Your task to perform on an android device: Show me productivity apps on the Play Store Image 0: 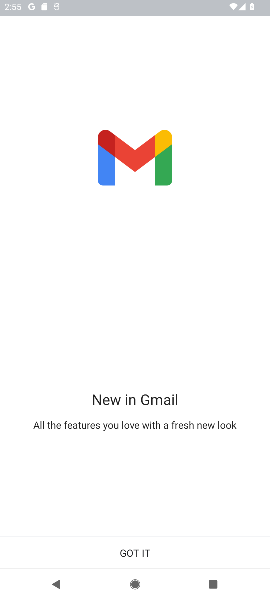
Step 0: drag from (110, 253) to (93, 94)
Your task to perform on an android device: Show me productivity apps on the Play Store Image 1: 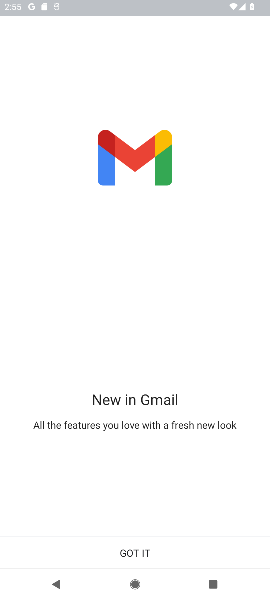
Step 1: click (119, 116)
Your task to perform on an android device: Show me productivity apps on the Play Store Image 2: 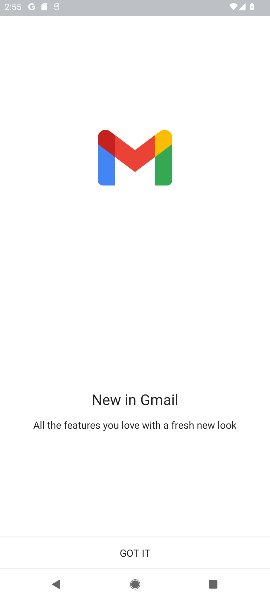
Step 2: click (133, 552)
Your task to perform on an android device: Show me productivity apps on the Play Store Image 3: 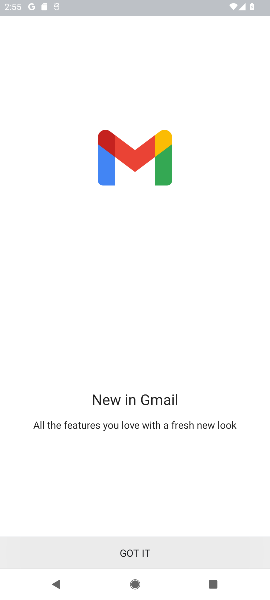
Step 3: press back button
Your task to perform on an android device: Show me productivity apps on the Play Store Image 4: 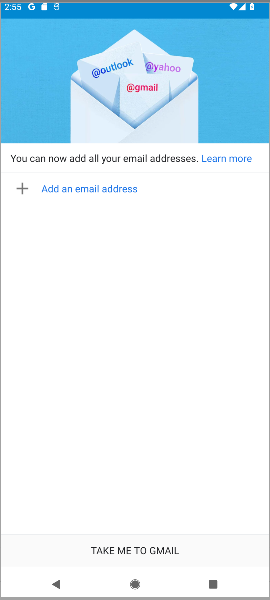
Step 4: press back button
Your task to perform on an android device: Show me productivity apps on the Play Store Image 5: 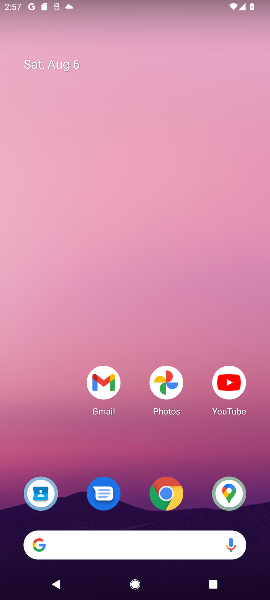
Step 5: drag from (204, 492) to (125, 14)
Your task to perform on an android device: Show me productivity apps on the Play Store Image 6: 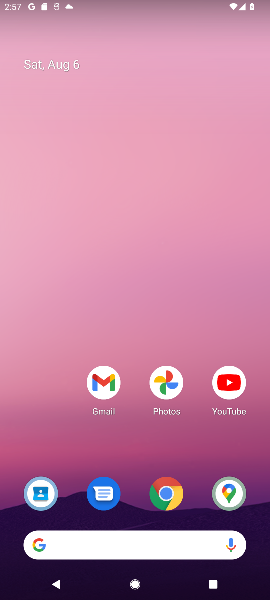
Step 6: drag from (177, 417) to (116, 35)
Your task to perform on an android device: Show me productivity apps on the Play Store Image 7: 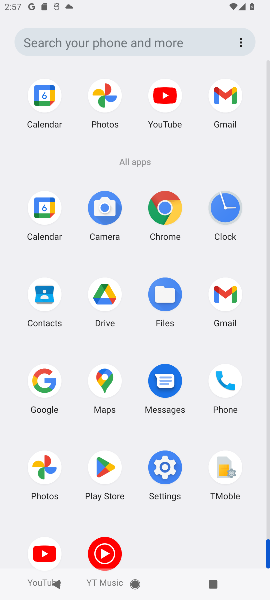
Step 7: drag from (187, 499) to (140, 131)
Your task to perform on an android device: Show me productivity apps on the Play Store Image 8: 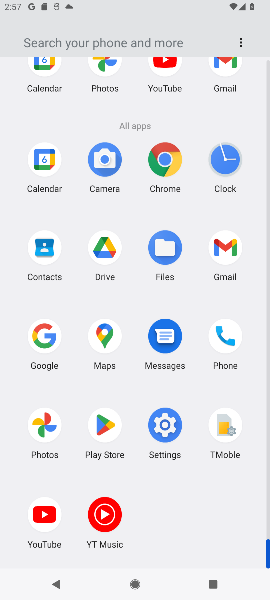
Step 8: drag from (170, 429) to (90, 152)
Your task to perform on an android device: Show me productivity apps on the Play Store Image 9: 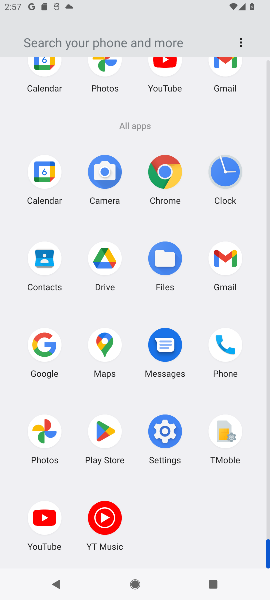
Step 9: click (98, 434)
Your task to perform on an android device: Show me productivity apps on the Play Store Image 10: 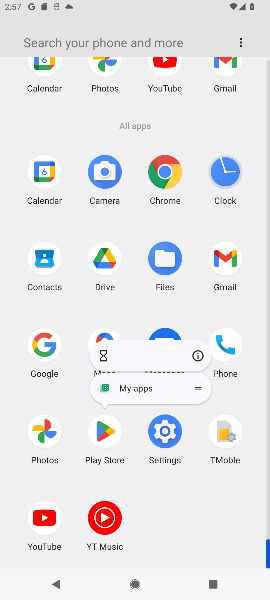
Step 10: click (98, 434)
Your task to perform on an android device: Show me productivity apps on the Play Store Image 11: 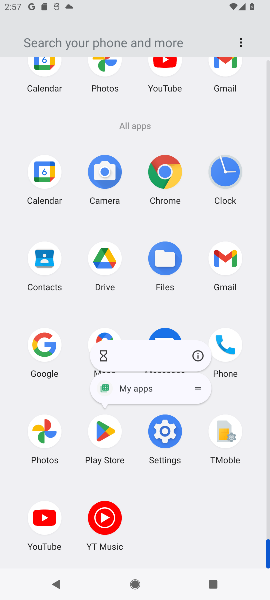
Step 11: click (98, 434)
Your task to perform on an android device: Show me productivity apps on the Play Store Image 12: 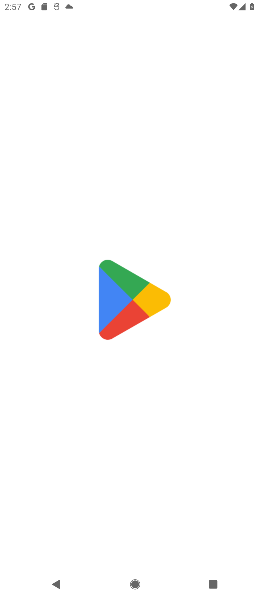
Step 12: click (108, 426)
Your task to perform on an android device: Show me productivity apps on the Play Store Image 13: 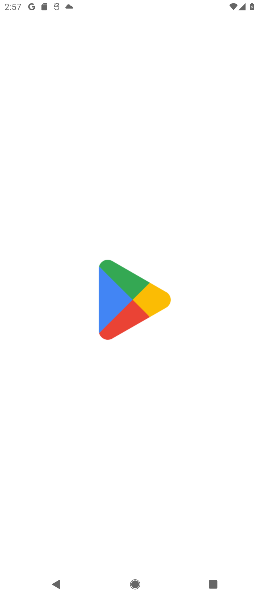
Step 13: click (108, 426)
Your task to perform on an android device: Show me productivity apps on the Play Store Image 14: 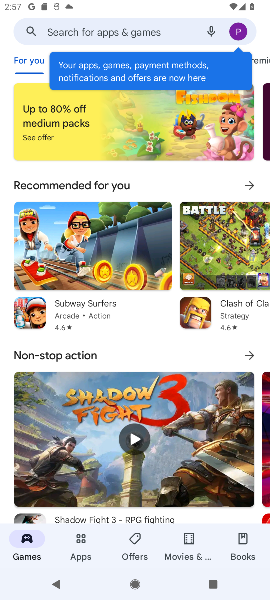
Step 14: click (79, 31)
Your task to perform on an android device: Show me productivity apps on the Play Store Image 15: 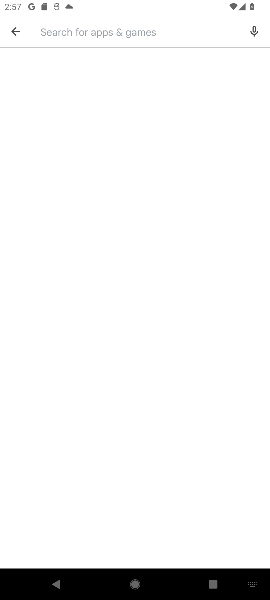
Step 15: click (84, 37)
Your task to perform on an android device: Show me productivity apps on the Play Store Image 16: 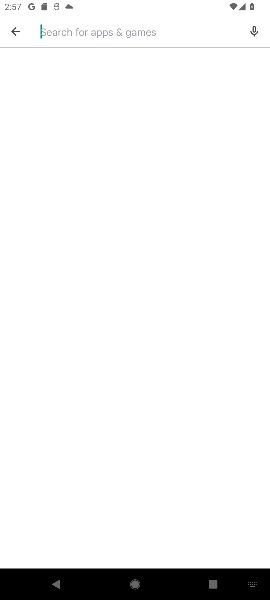
Step 16: type "play store"
Your task to perform on an android device: Show me productivity apps on the Play Store Image 17: 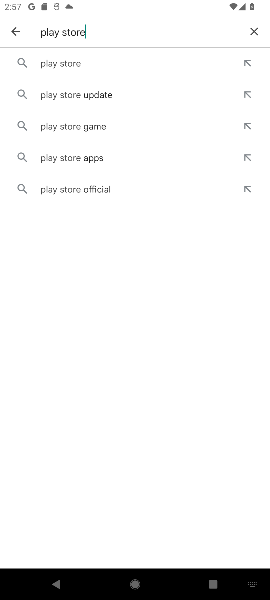
Step 17: click (64, 61)
Your task to perform on an android device: Show me productivity apps on the Play Store Image 18: 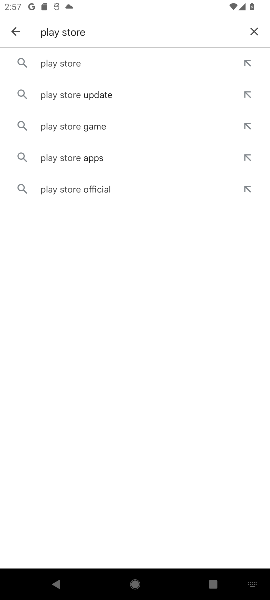
Step 18: click (64, 61)
Your task to perform on an android device: Show me productivity apps on the Play Store Image 19: 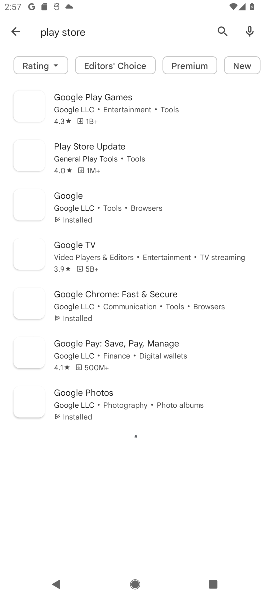
Step 19: click (66, 62)
Your task to perform on an android device: Show me productivity apps on the Play Store Image 20: 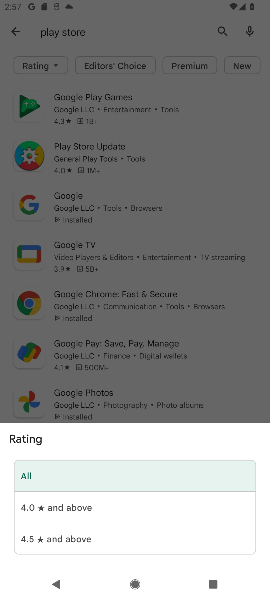
Step 20: task complete